Your task to perform on an android device: open device folders in google photos Image 0: 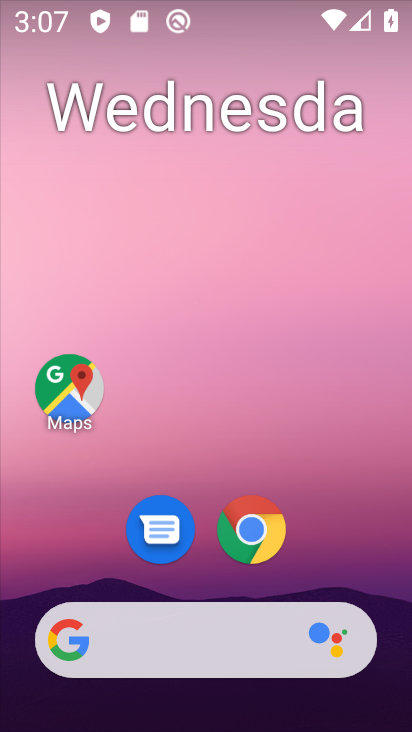
Step 0: drag from (69, 602) to (186, 91)
Your task to perform on an android device: open device folders in google photos Image 1: 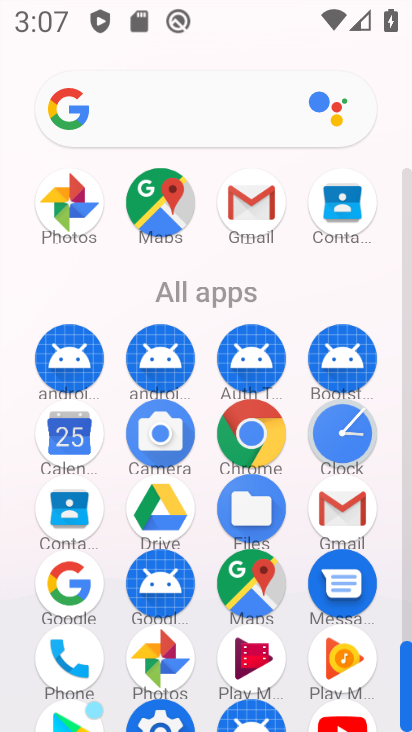
Step 1: click (159, 662)
Your task to perform on an android device: open device folders in google photos Image 2: 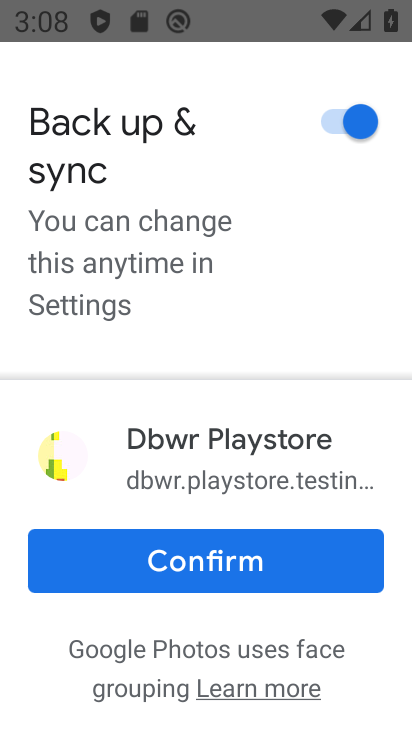
Step 2: click (245, 574)
Your task to perform on an android device: open device folders in google photos Image 3: 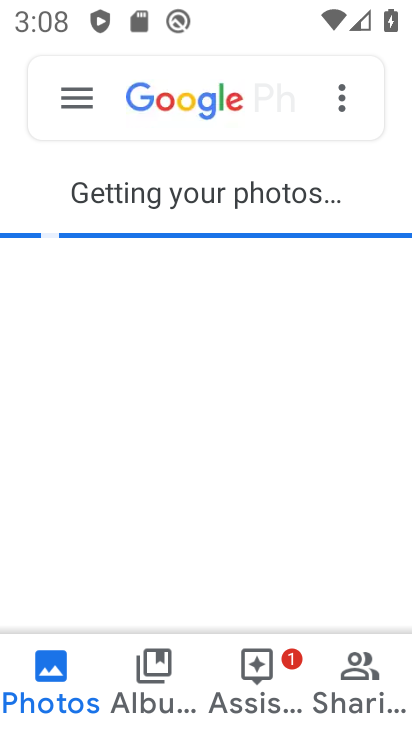
Step 3: click (65, 114)
Your task to perform on an android device: open device folders in google photos Image 4: 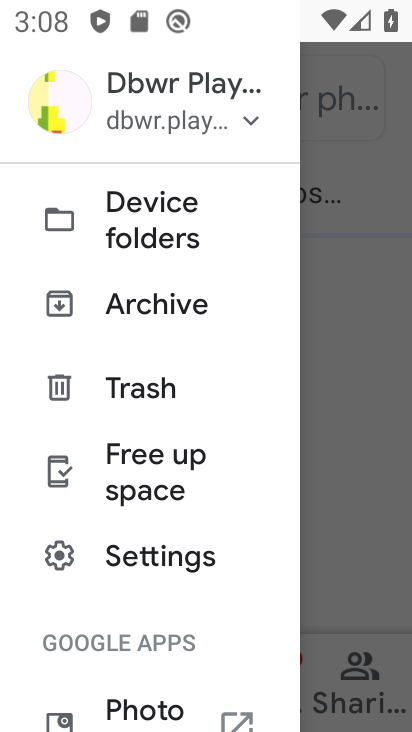
Step 4: click (195, 221)
Your task to perform on an android device: open device folders in google photos Image 5: 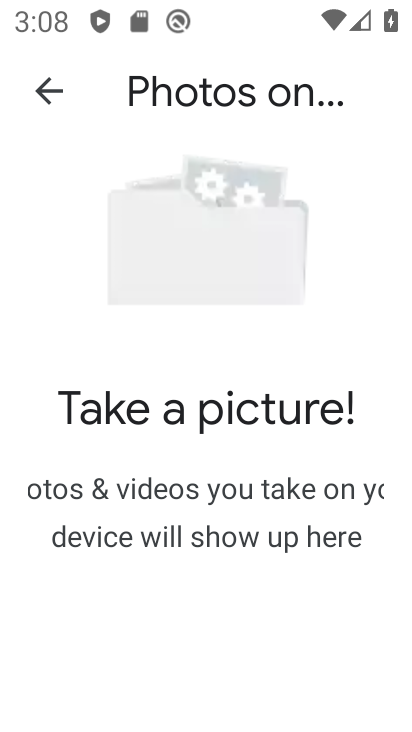
Step 5: task complete